Your task to perform on an android device: Search for razer blackwidow on amazon.com, select the first entry, add it to the cart, then select checkout. Image 0: 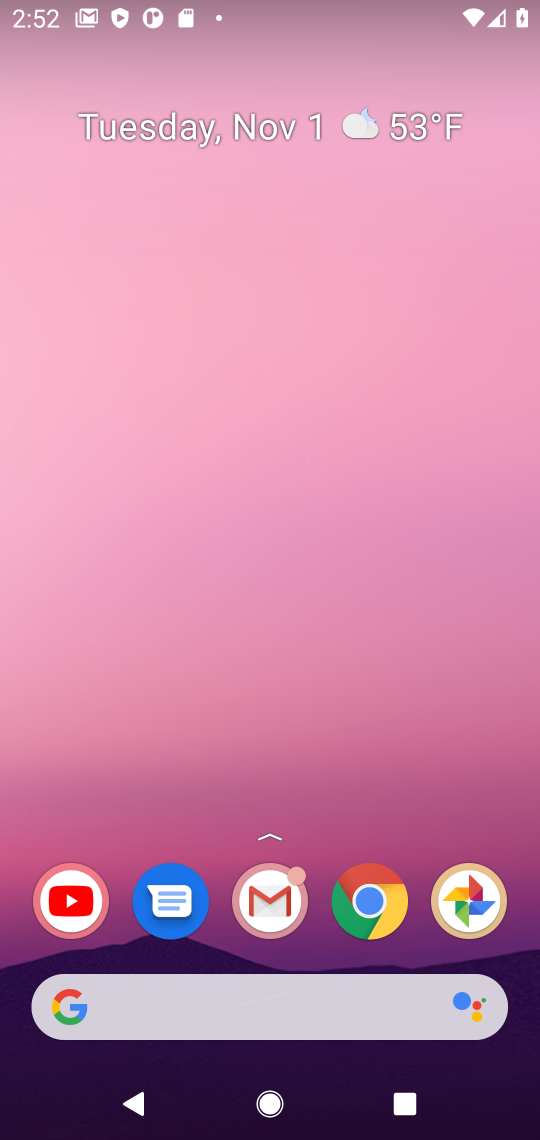
Step 0: click (367, 906)
Your task to perform on an android device: Search for razer blackwidow on amazon.com, select the first entry, add it to the cart, then select checkout. Image 1: 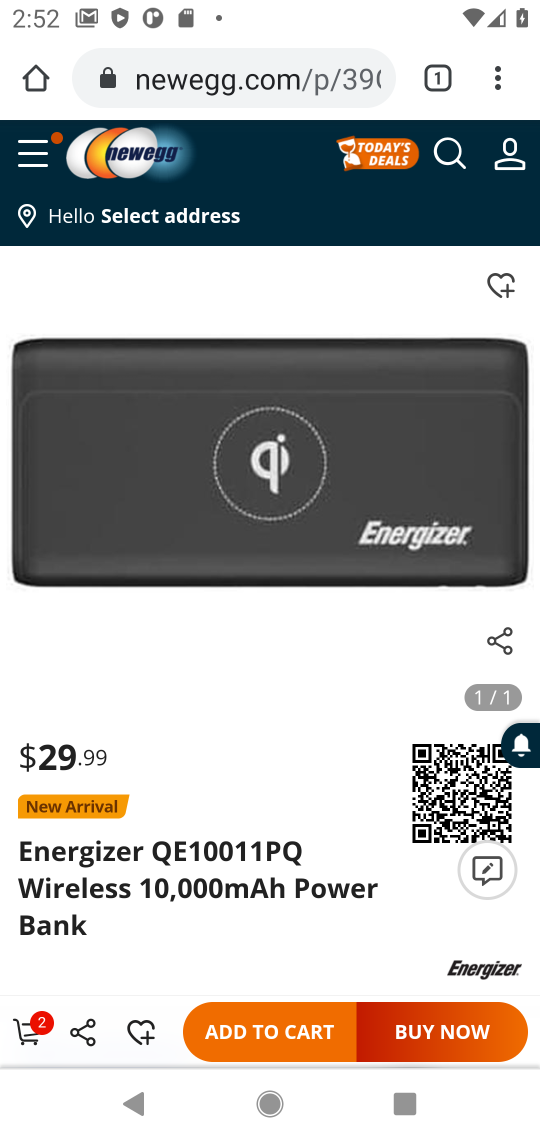
Step 1: click (177, 74)
Your task to perform on an android device: Search for razer blackwidow on amazon.com, select the first entry, add it to the cart, then select checkout. Image 2: 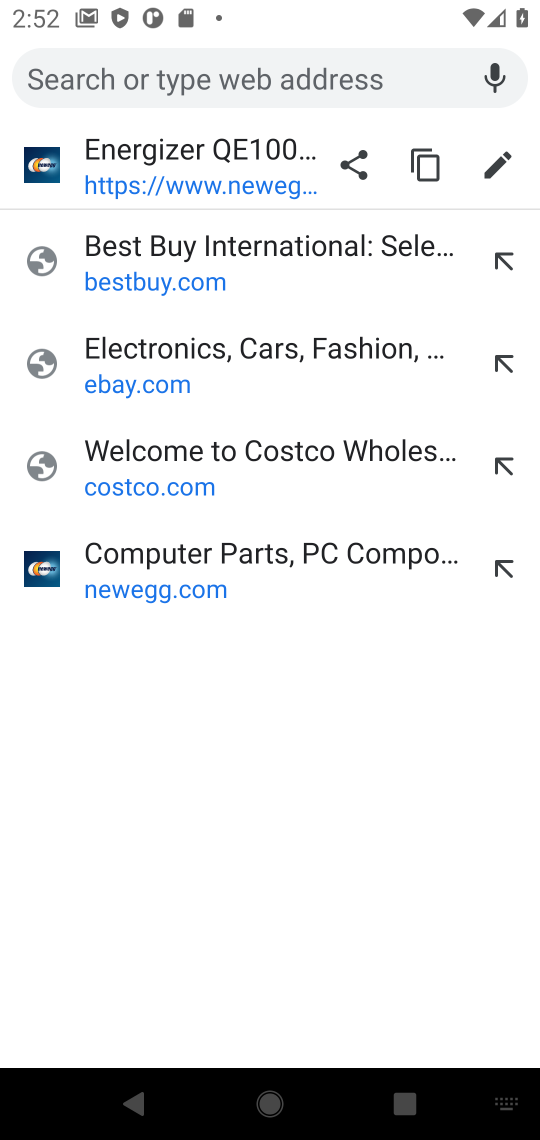
Step 2: type "amazon.com"
Your task to perform on an android device: Search for razer blackwidow on amazon.com, select the first entry, add it to the cart, then select checkout. Image 3: 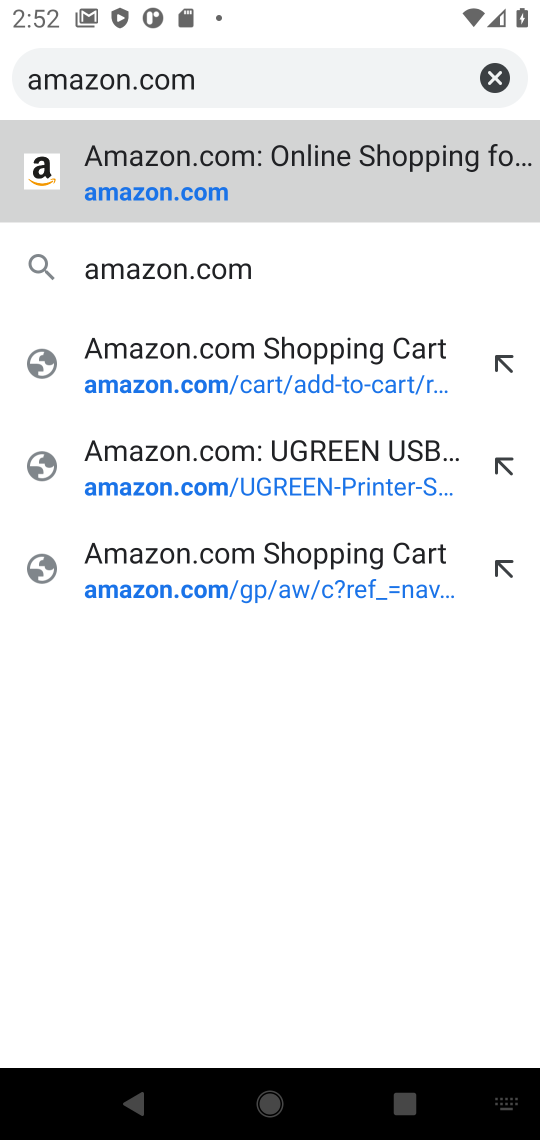
Step 3: click (406, 164)
Your task to perform on an android device: Search for razer blackwidow on amazon.com, select the first entry, add it to the cart, then select checkout. Image 4: 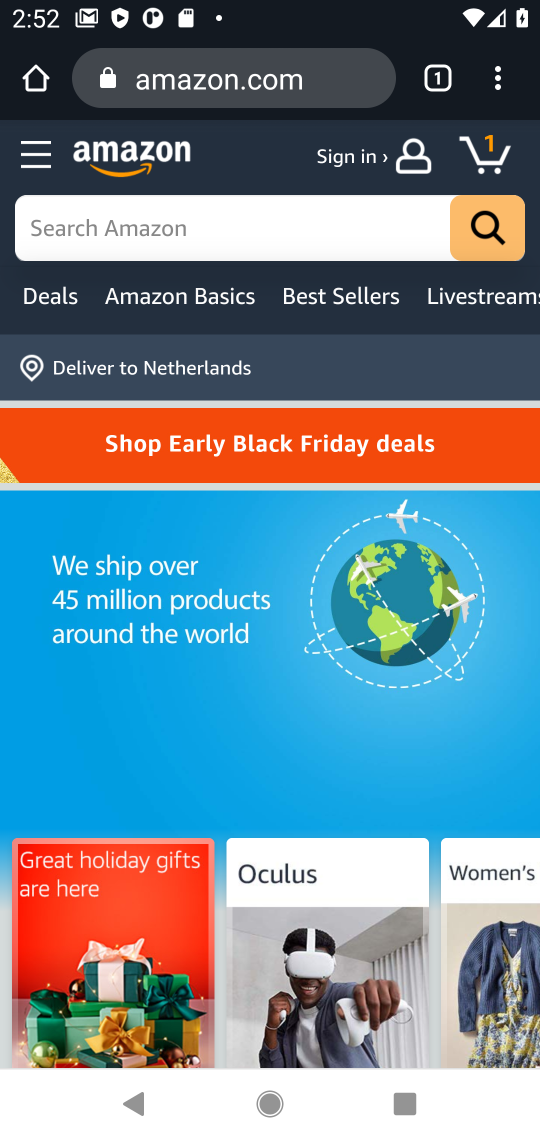
Step 4: click (174, 224)
Your task to perform on an android device: Search for razer blackwidow on amazon.com, select the first entry, add it to the cart, then select checkout. Image 5: 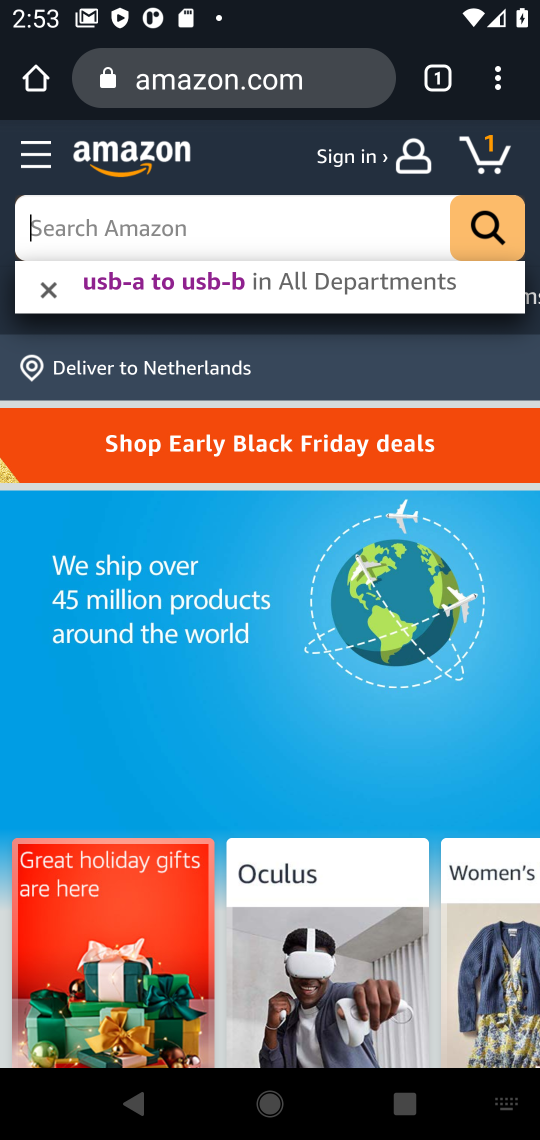
Step 5: type "razer blackwidow"
Your task to perform on an android device: Search for razer blackwidow on amazon.com, select the first entry, add it to the cart, then select checkout. Image 6: 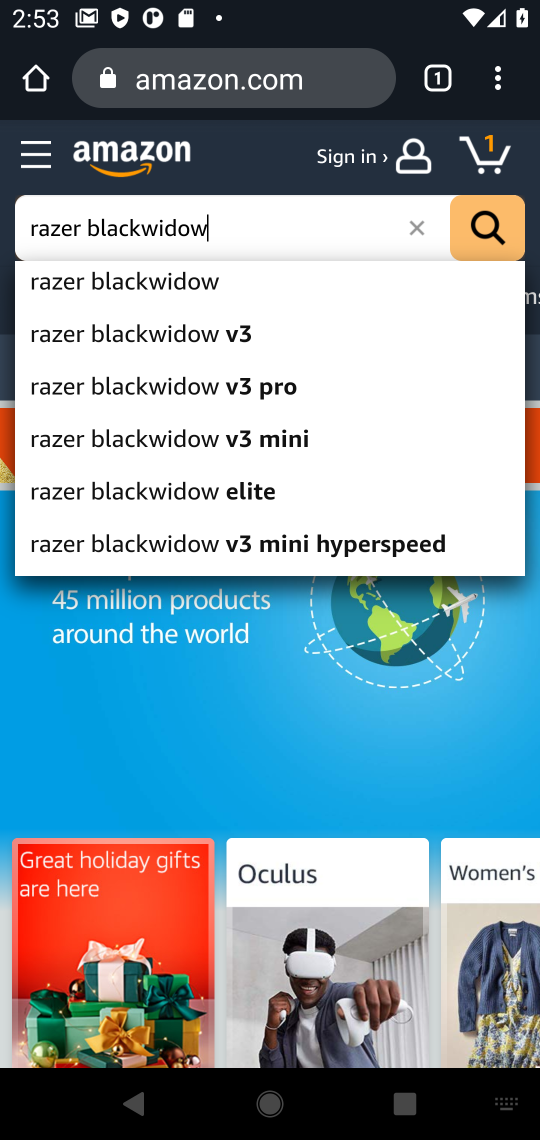
Step 6: click (66, 291)
Your task to perform on an android device: Search for razer blackwidow on amazon.com, select the first entry, add it to the cart, then select checkout. Image 7: 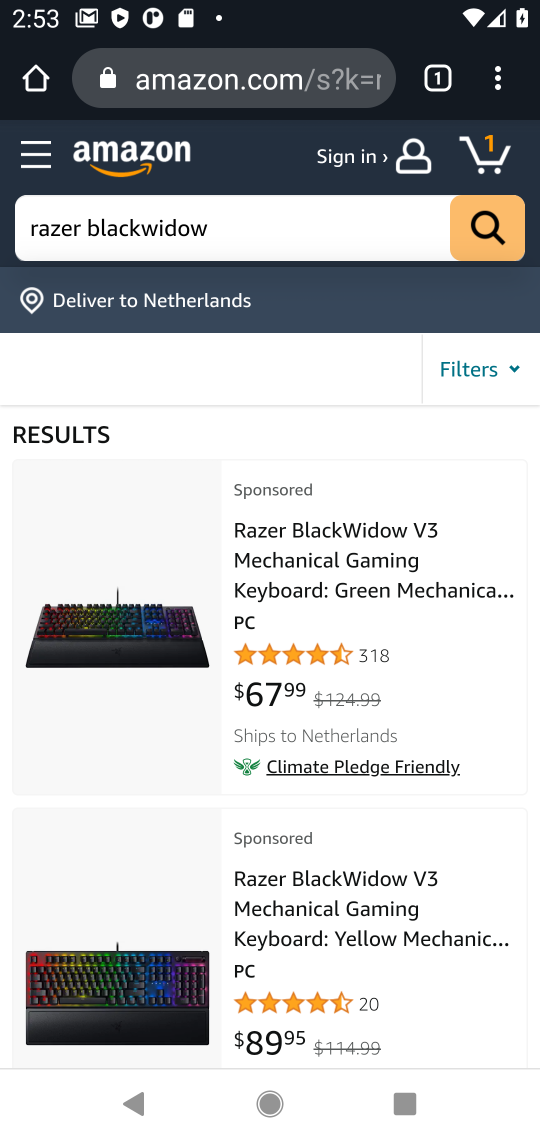
Step 7: click (281, 553)
Your task to perform on an android device: Search for razer blackwidow on amazon.com, select the first entry, add it to the cart, then select checkout. Image 8: 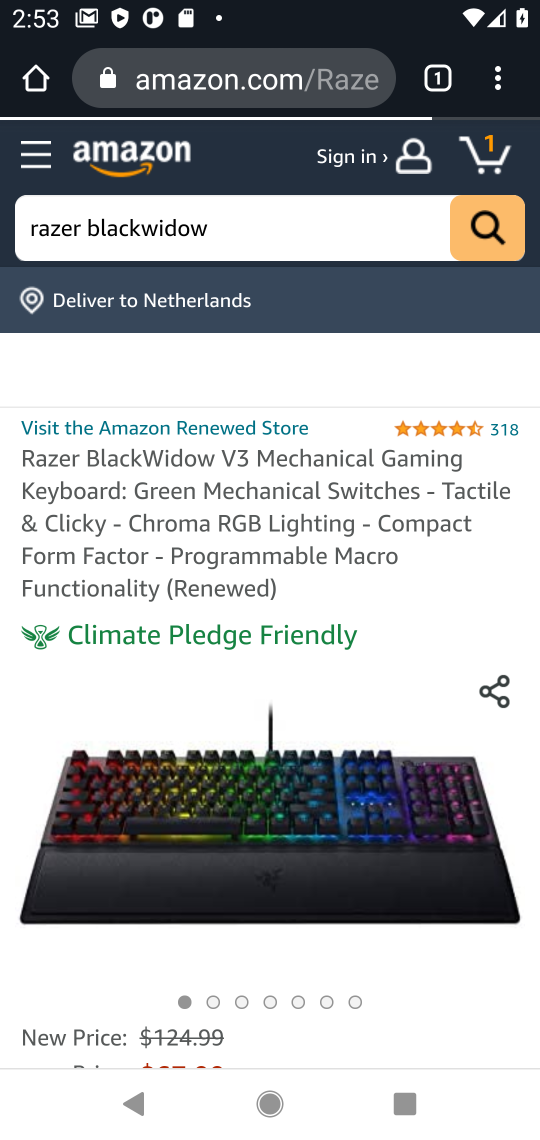
Step 8: drag from (421, 997) to (380, 662)
Your task to perform on an android device: Search for razer blackwidow on amazon.com, select the first entry, add it to the cart, then select checkout. Image 9: 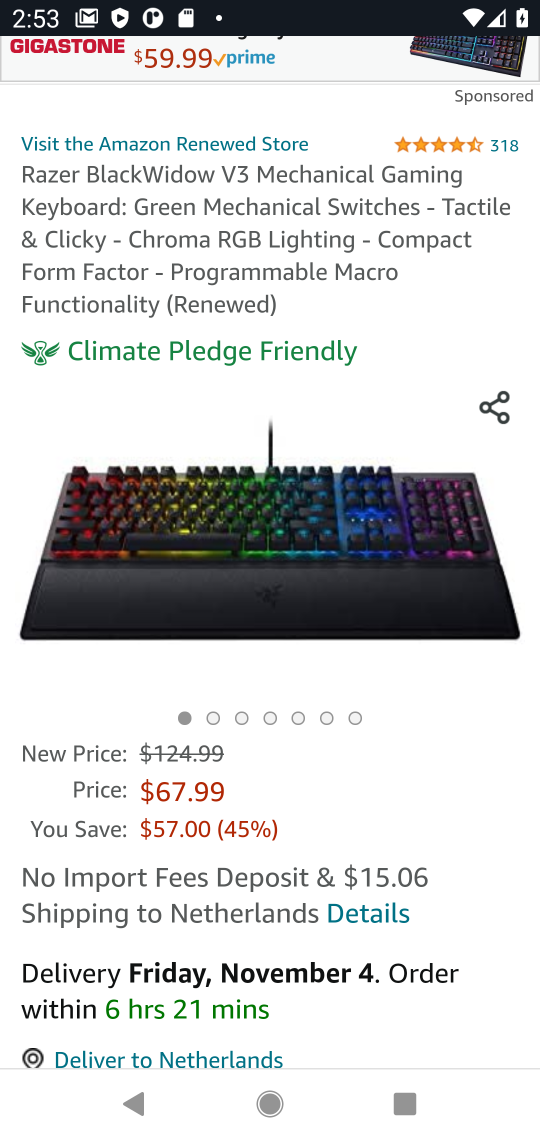
Step 9: drag from (383, 801) to (289, 360)
Your task to perform on an android device: Search for razer blackwidow on amazon.com, select the first entry, add it to the cart, then select checkout. Image 10: 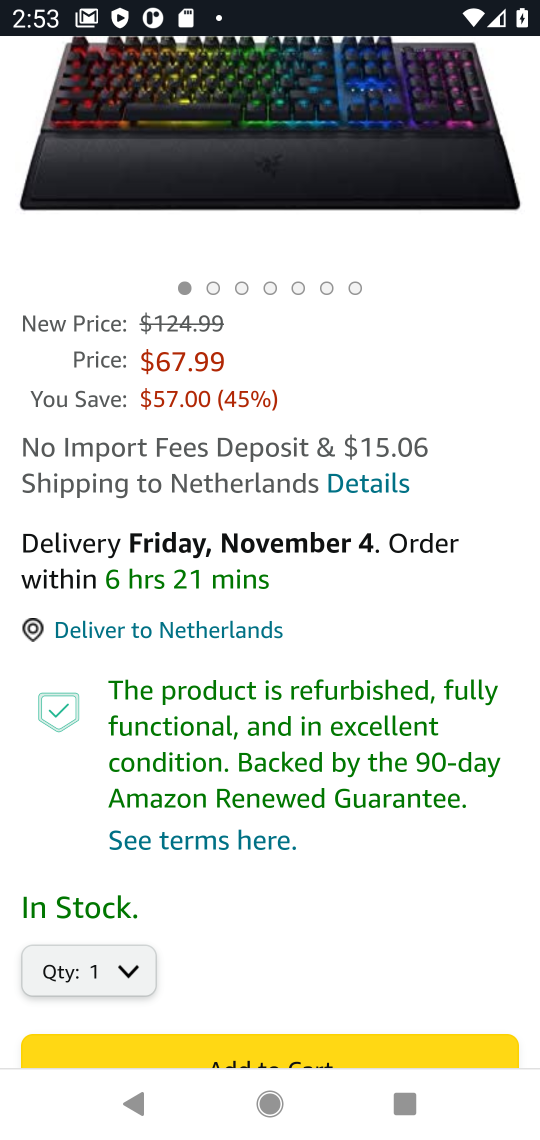
Step 10: drag from (325, 919) to (281, 454)
Your task to perform on an android device: Search for razer blackwidow on amazon.com, select the first entry, add it to the cart, then select checkout. Image 11: 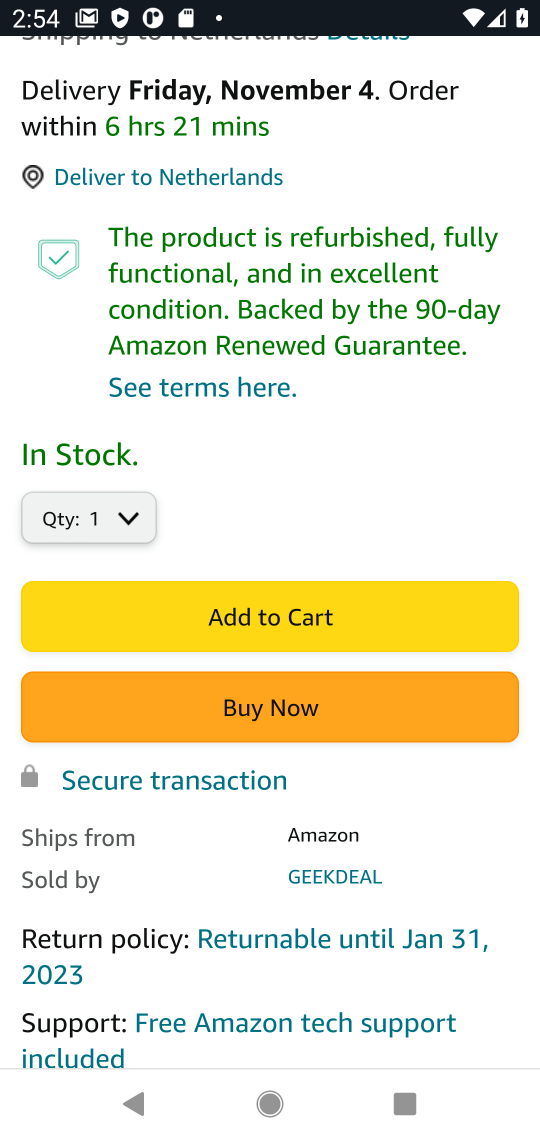
Step 11: click (248, 620)
Your task to perform on an android device: Search for razer blackwidow on amazon.com, select the first entry, add it to the cart, then select checkout. Image 12: 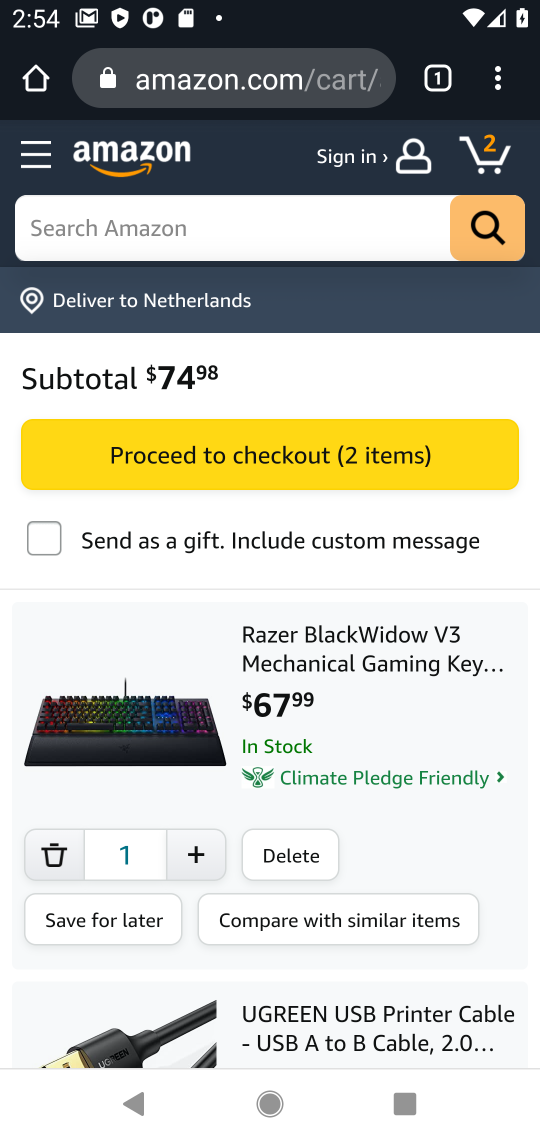
Step 12: click (240, 456)
Your task to perform on an android device: Search for razer blackwidow on amazon.com, select the first entry, add it to the cart, then select checkout. Image 13: 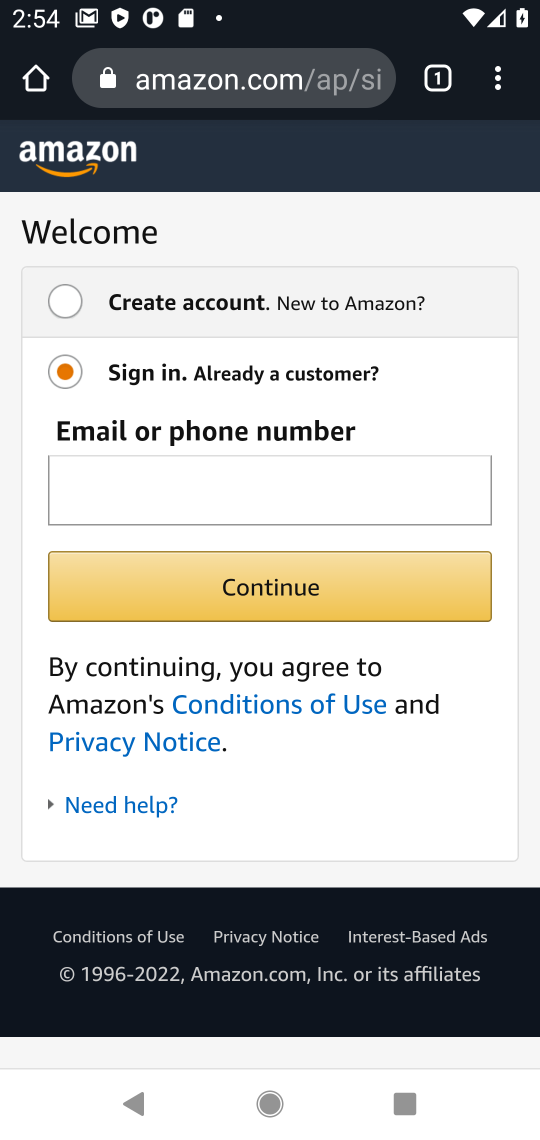
Step 13: task complete